Your task to perform on an android device: Go to Google Image 0: 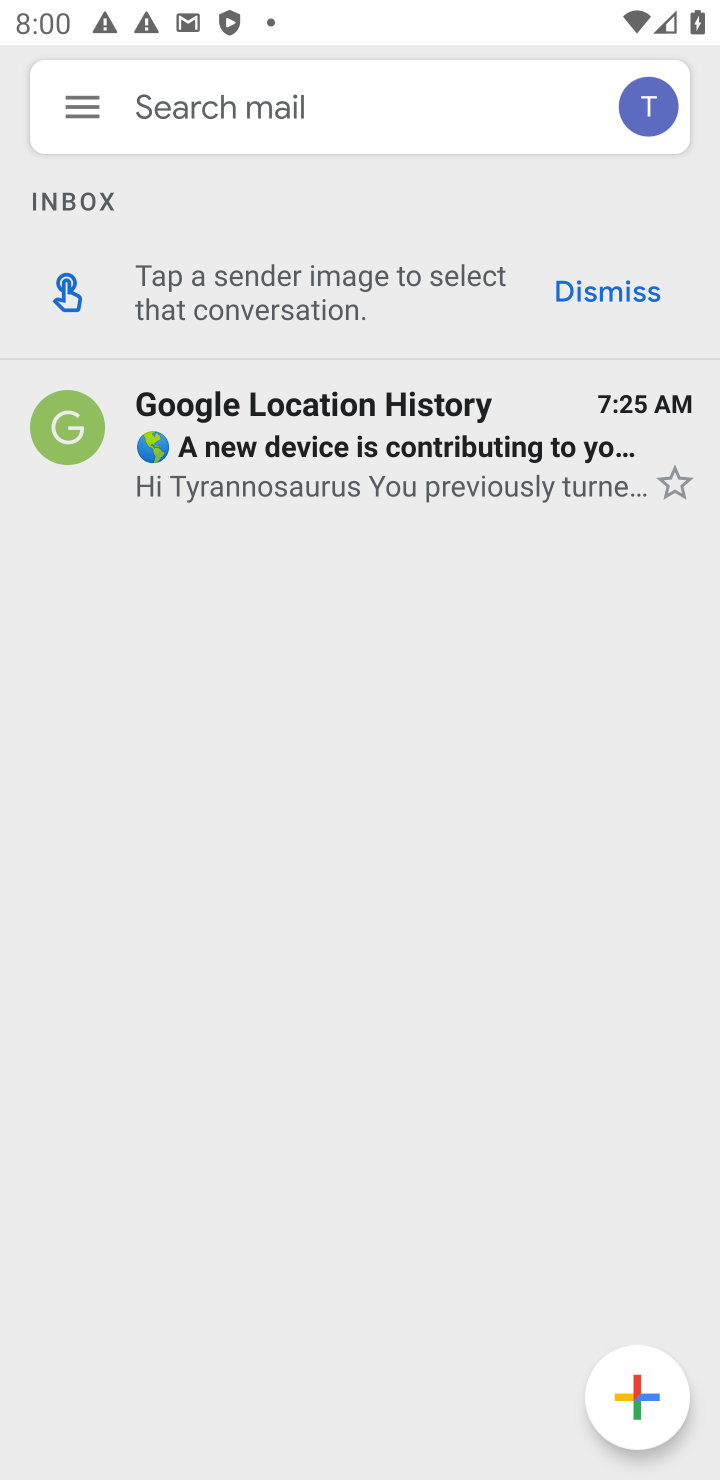
Step 0: press home button
Your task to perform on an android device: Go to Google Image 1: 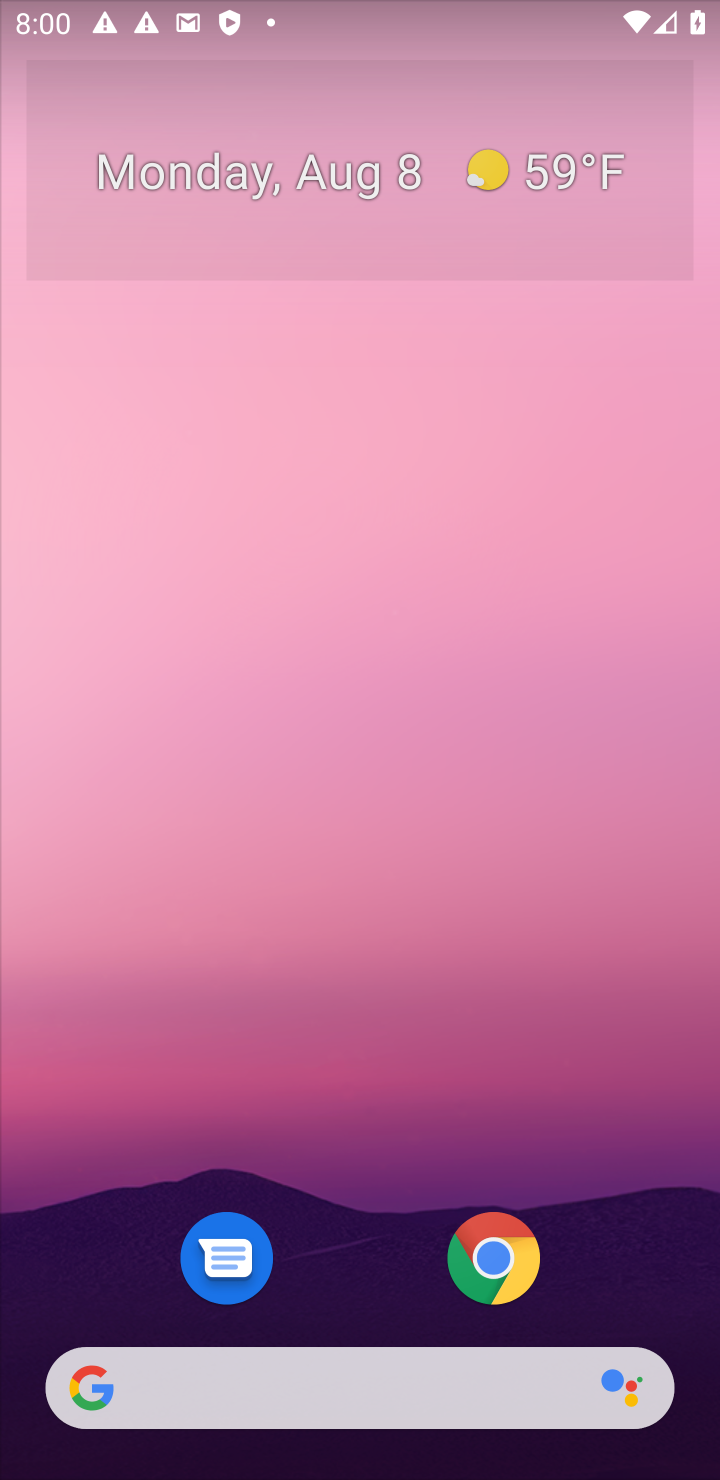
Step 1: click (518, 1268)
Your task to perform on an android device: Go to Google Image 2: 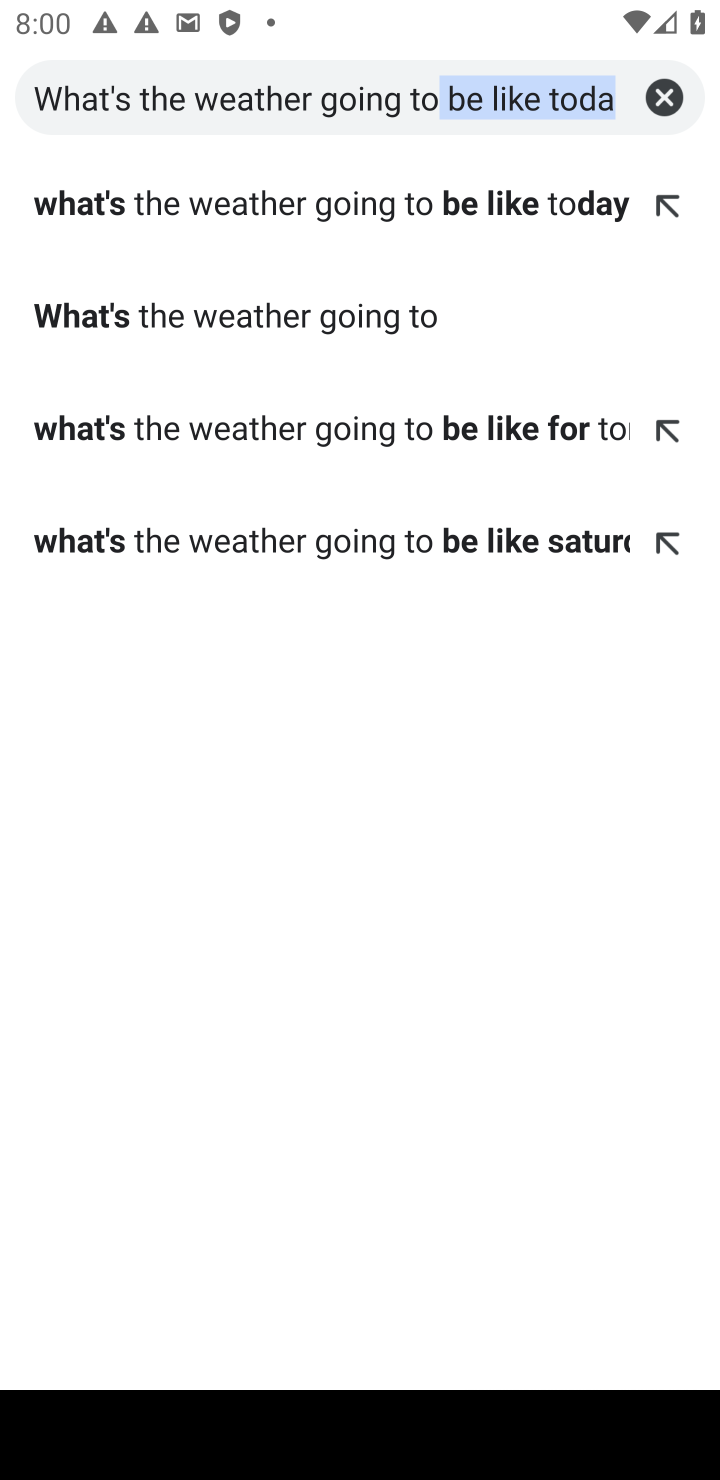
Step 2: task complete